Your task to perform on an android device: see sites visited before in the chrome app Image 0: 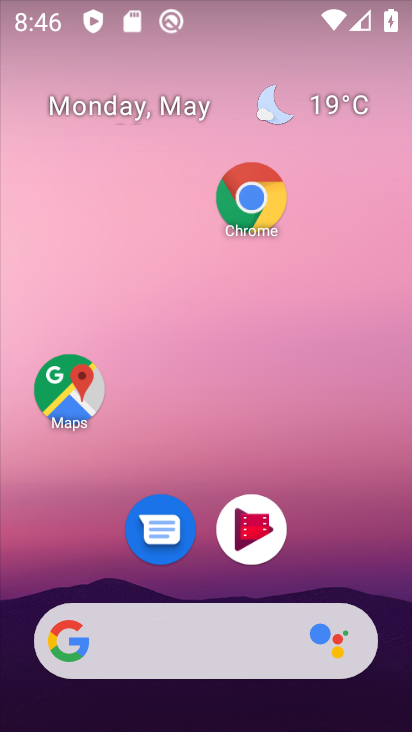
Step 0: click (247, 204)
Your task to perform on an android device: see sites visited before in the chrome app Image 1: 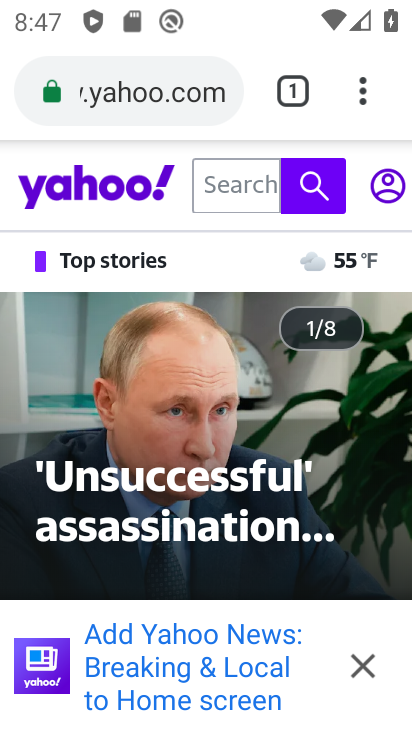
Step 1: click (363, 97)
Your task to perform on an android device: see sites visited before in the chrome app Image 2: 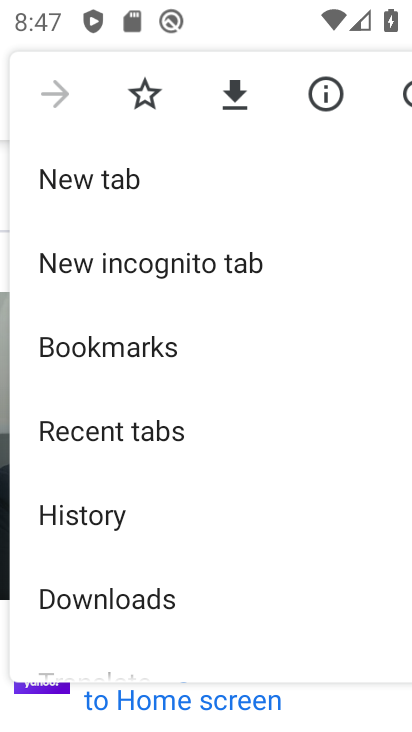
Step 2: click (91, 519)
Your task to perform on an android device: see sites visited before in the chrome app Image 3: 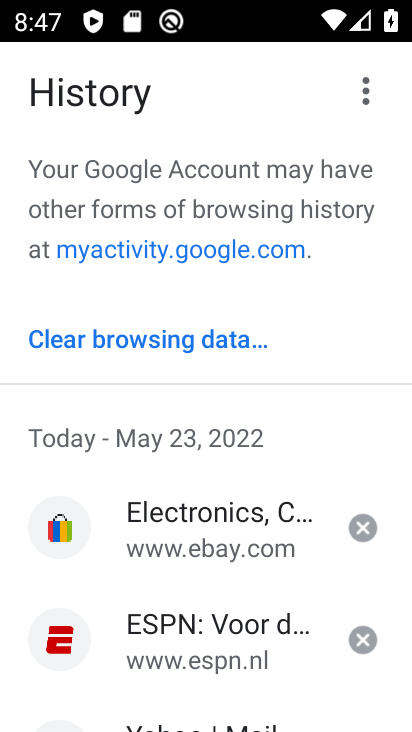
Step 3: task complete